Your task to perform on an android device: Open calendar and show me the third week of next month Image 0: 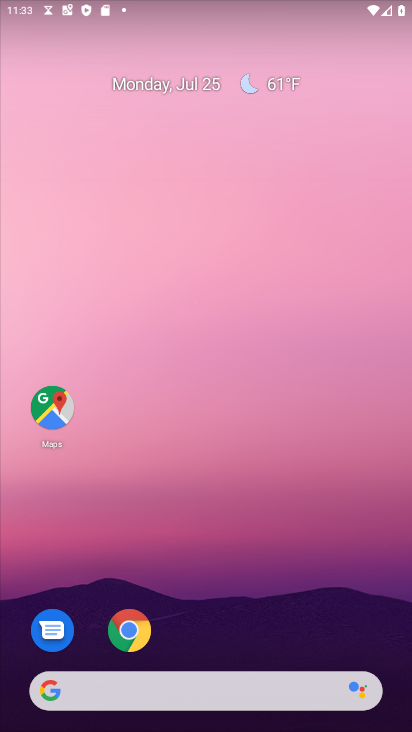
Step 0: drag from (311, 615) to (280, 134)
Your task to perform on an android device: Open calendar and show me the third week of next month Image 1: 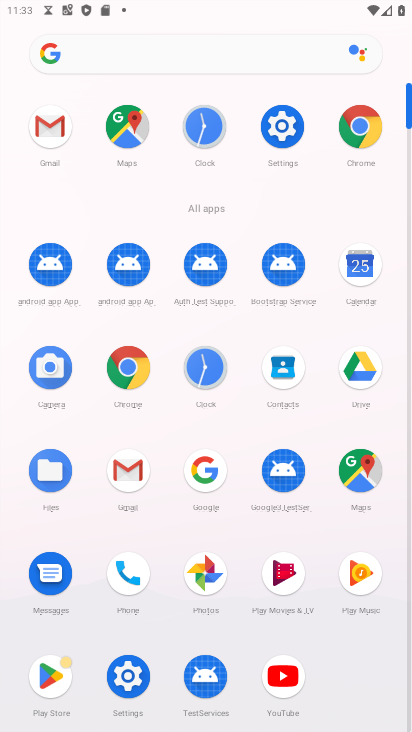
Step 1: click (354, 264)
Your task to perform on an android device: Open calendar and show me the third week of next month Image 2: 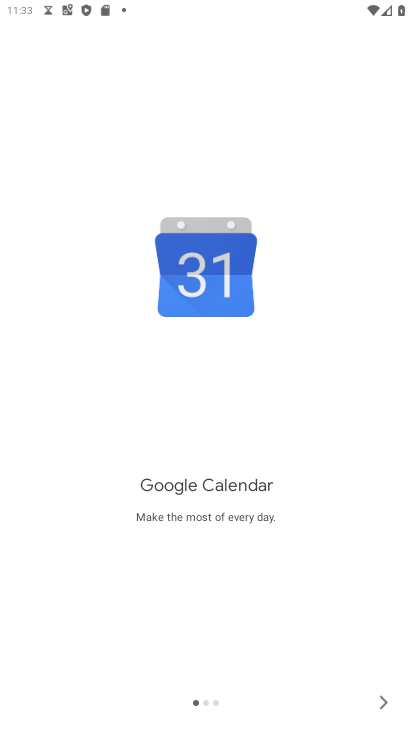
Step 2: click (379, 715)
Your task to perform on an android device: Open calendar and show me the third week of next month Image 3: 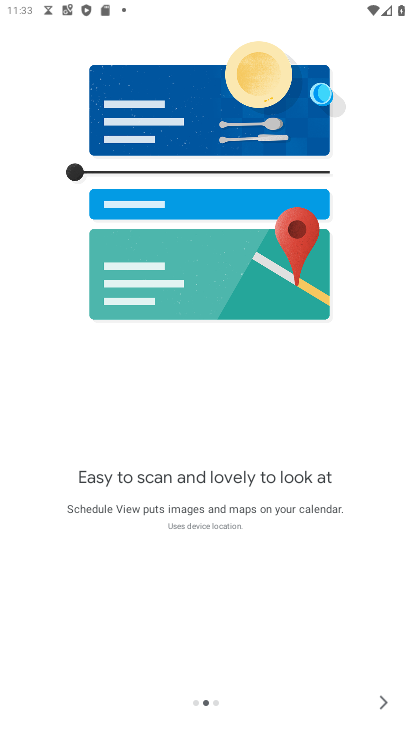
Step 3: click (379, 715)
Your task to perform on an android device: Open calendar and show me the third week of next month Image 4: 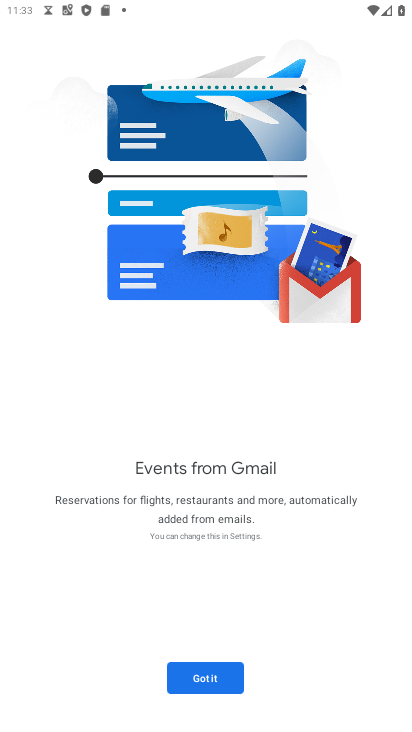
Step 4: click (210, 680)
Your task to perform on an android device: Open calendar and show me the third week of next month Image 5: 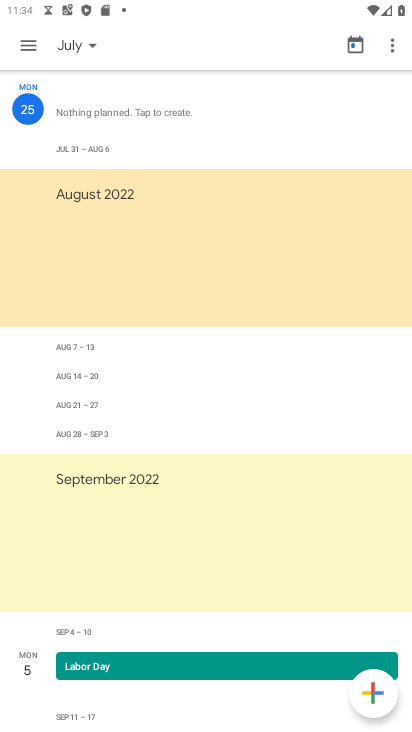
Step 5: click (72, 53)
Your task to perform on an android device: Open calendar and show me the third week of next month Image 6: 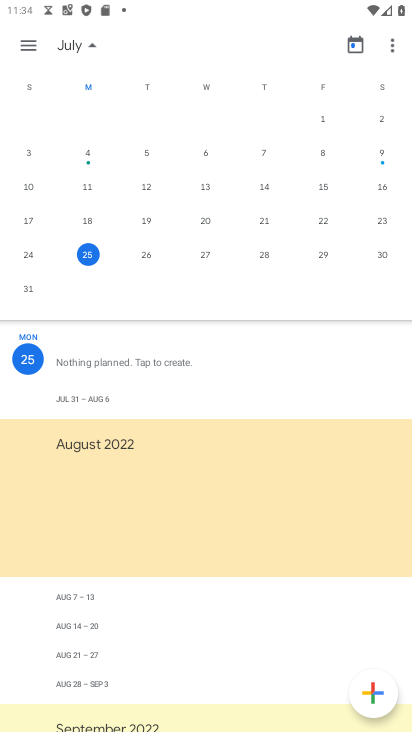
Step 6: drag from (397, 200) to (25, 160)
Your task to perform on an android device: Open calendar and show me the third week of next month Image 7: 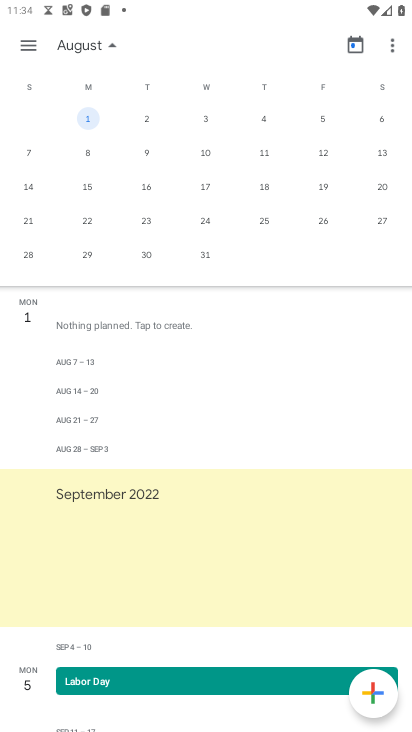
Step 7: click (29, 184)
Your task to perform on an android device: Open calendar and show me the third week of next month Image 8: 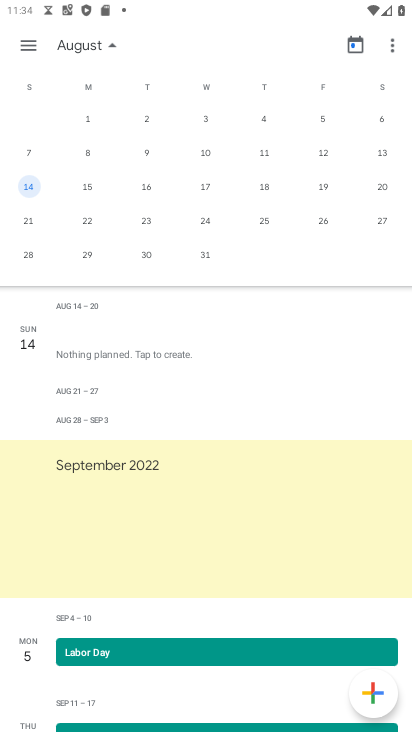
Step 8: task complete